Your task to perform on an android device: move an email to a new category in the gmail app Image 0: 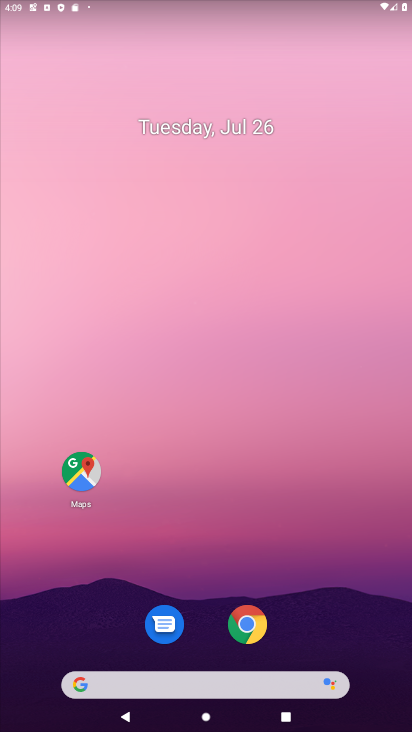
Step 0: drag from (242, 612) to (407, 626)
Your task to perform on an android device: move an email to a new category in the gmail app Image 1: 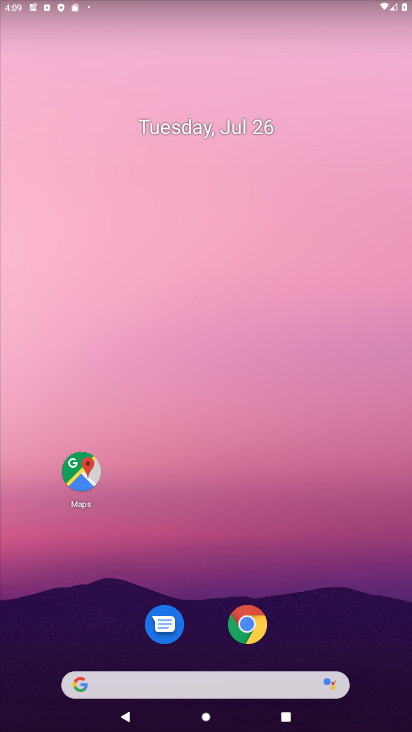
Step 1: click (337, 533)
Your task to perform on an android device: move an email to a new category in the gmail app Image 2: 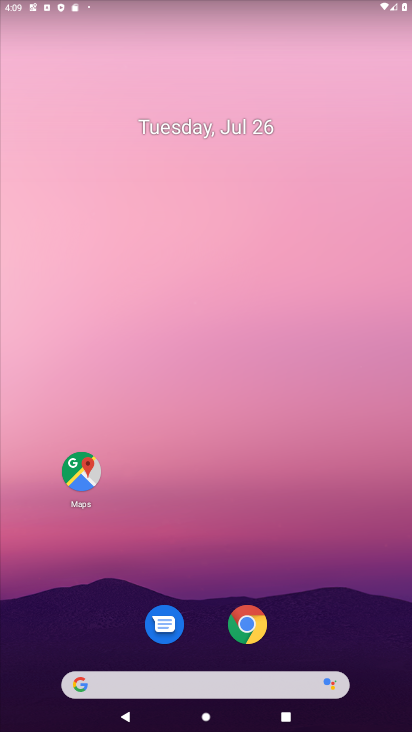
Step 2: drag from (310, 681) to (308, 3)
Your task to perform on an android device: move an email to a new category in the gmail app Image 3: 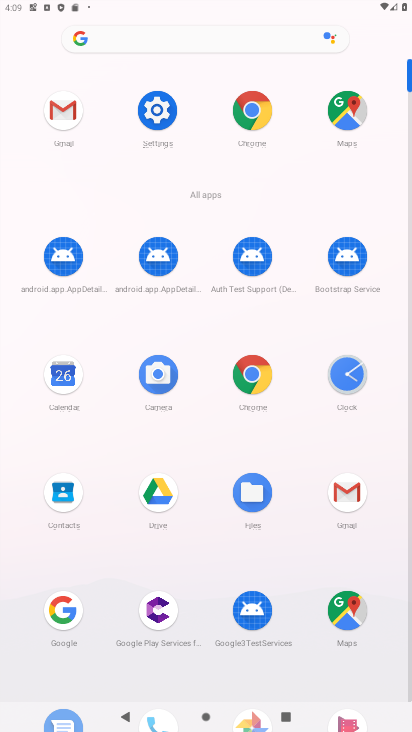
Step 3: click (353, 488)
Your task to perform on an android device: move an email to a new category in the gmail app Image 4: 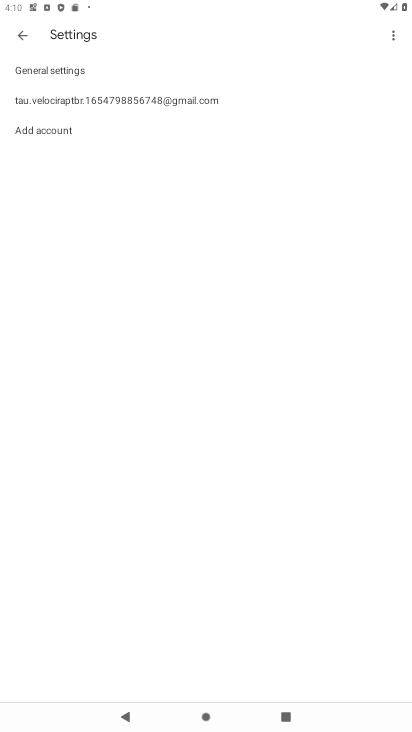
Step 4: press back button
Your task to perform on an android device: move an email to a new category in the gmail app Image 5: 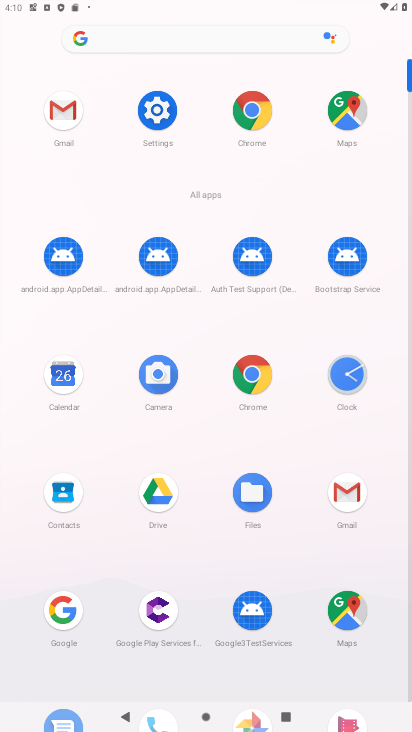
Step 5: click (353, 480)
Your task to perform on an android device: move an email to a new category in the gmail app Image 6: 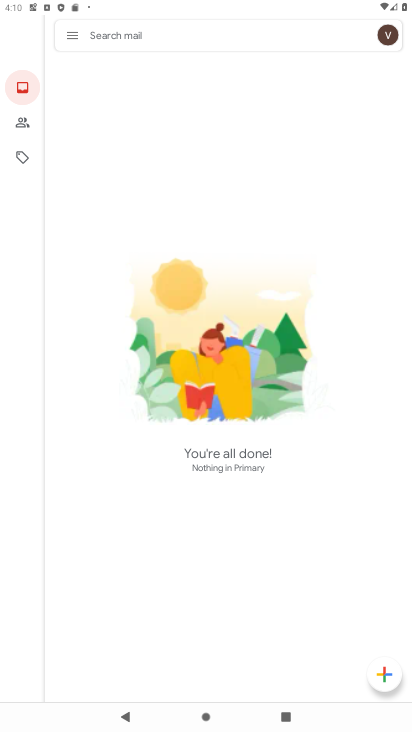
Step 6: click (76, 30)
Your task to perform on an android device: move an email to a new category in the gmail app Image 7: 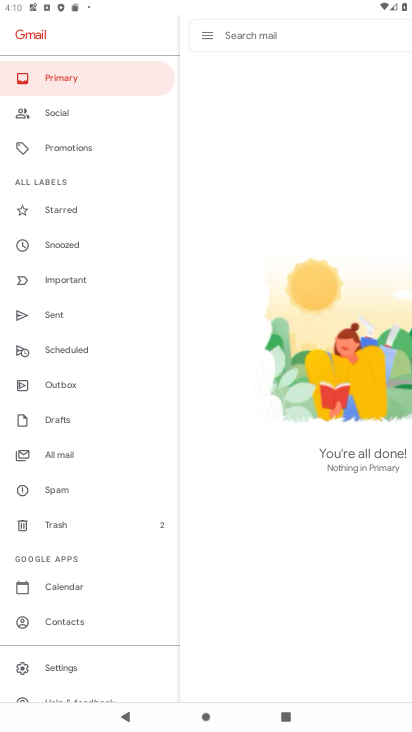
Step 7: task complete